Your task to perform on an android device: toggle priority inbox in the gmail app Image 0: 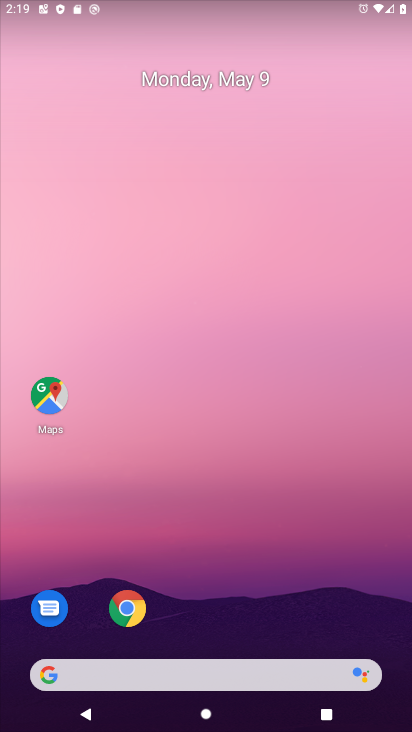
Step 0: drag from (182, 622) to (188, 220)
Your task to perform on an android device: toggle priority inbox in the gmail app Image 1: 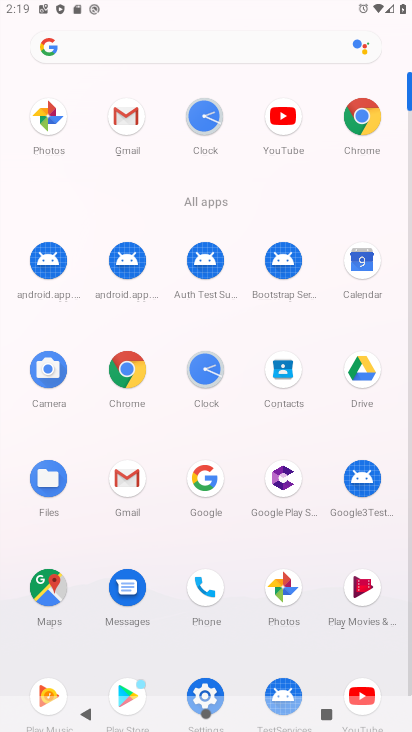
Step 1: click (118, 101)
Your task to perform on an android device: toggle priority inbox in the gmail app Image 2: 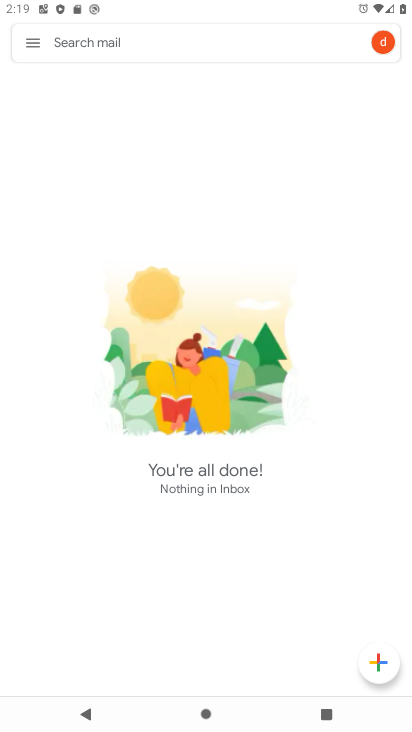
Step 2: click (43, 36)
Your task to perform on an android device: toggle priority inbox in the gmail app Image 3: 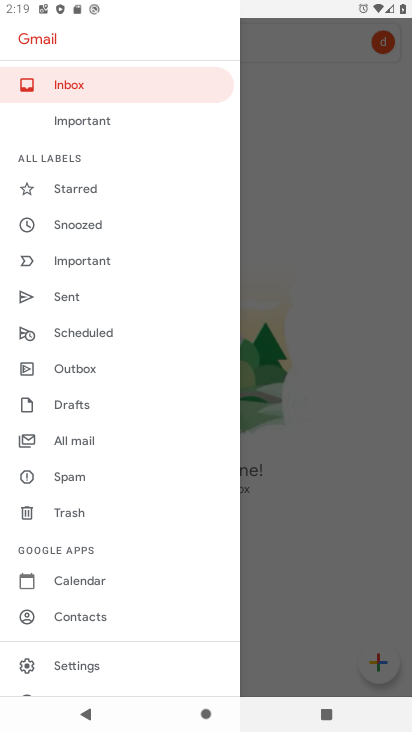
Step 3: click (84, 667)
Your task to perform on an android device: toggle priority inbox in the gmail app Image 4: 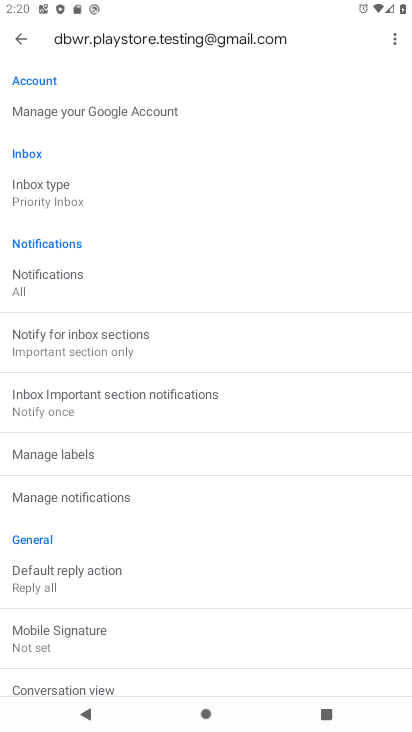
Step 4: click (184, 200)
Your task to perform on an android device: toggle priority inbox in the gmail app Image 5: 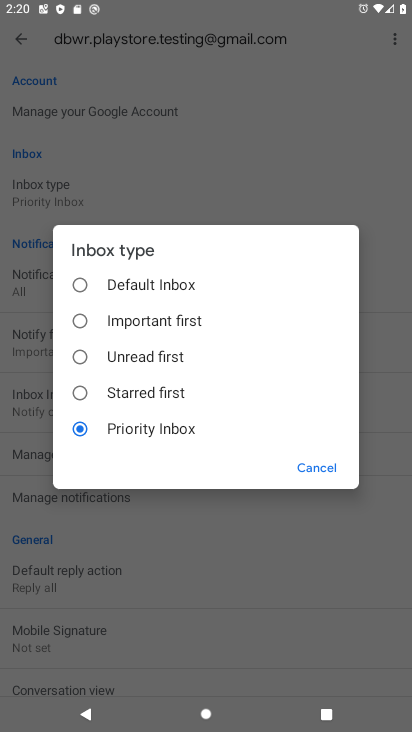
Step 5: click (118, 368)
Your task to perform on an android device: toggle priority inbox in the gmail app Image 6: 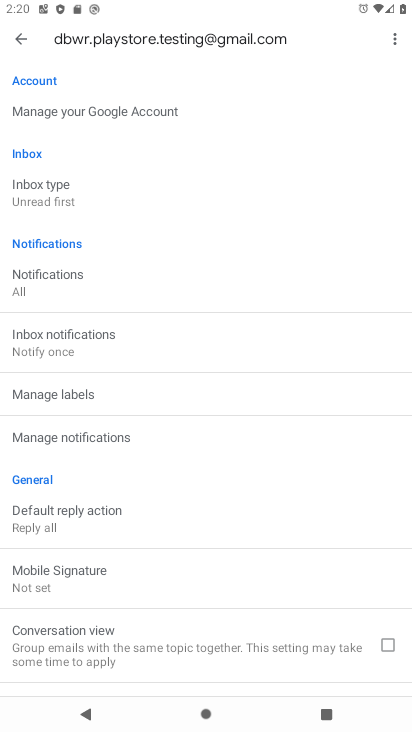
Step 6: task complete